Your task to perform on an android device: delete location history Image 0: 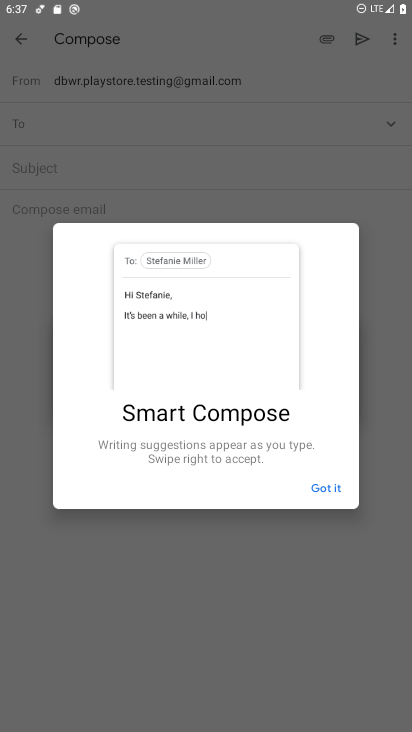
Step 0: press home button
Your task to perform on an android device: delete location history Image 1: 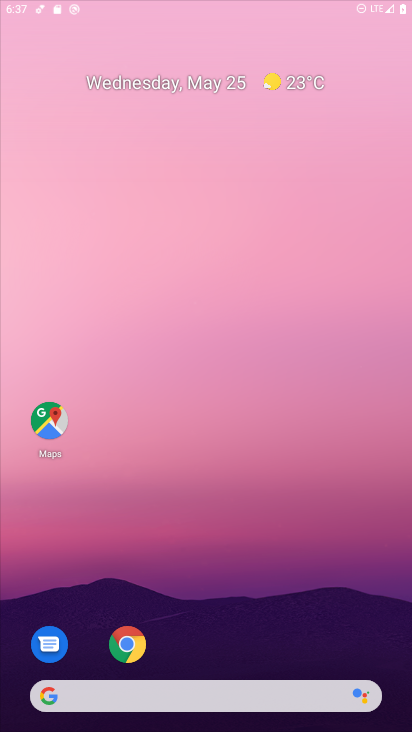
Step 1: drag from (351, 653) to (268, 78)
Your task to perform on an android device: delete location history Image 2: 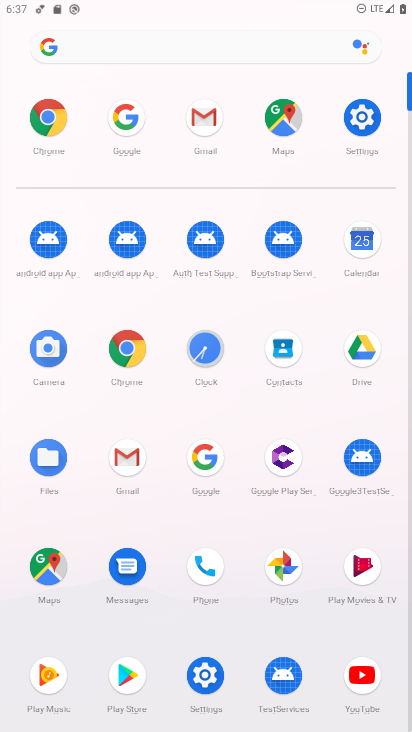
Step 2: click (371, 136)
Your task to perform on an android device: delete location history Image 3: 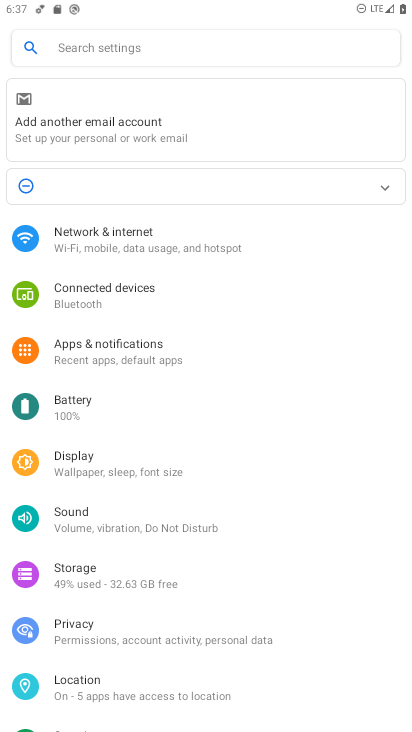
Step 3: click (76, 685)
Your task to perform on an android device: delete location history Image 4: 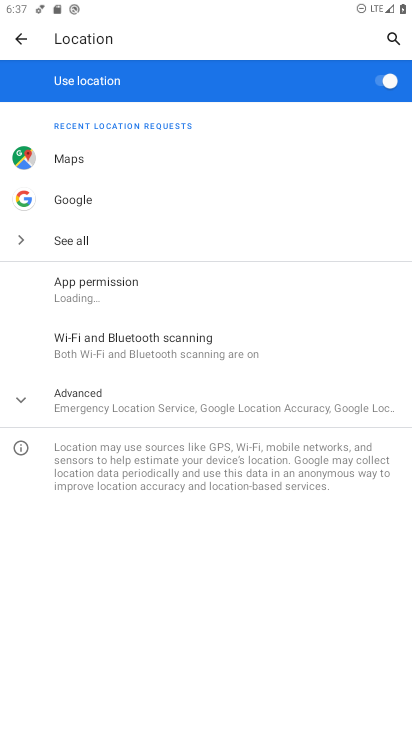
Step 4: click (145, 407)
Your task to perform on an android device: delete location history Image 5: 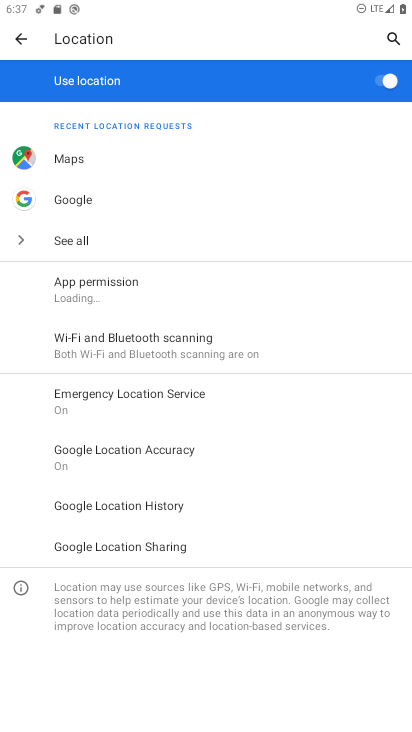
Step 5: click (158, 501)
Your task to perform on an android device: delete location history Image 6: 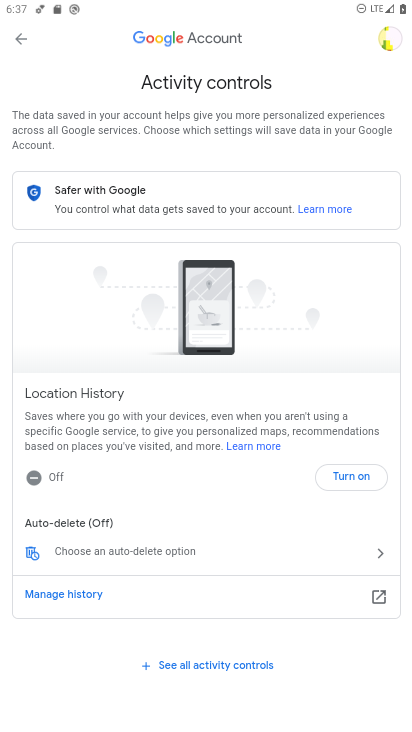
Step 6: drag from (374, 649) to (290, 171)
Your task to perform on an android device: delete location history Image 7: 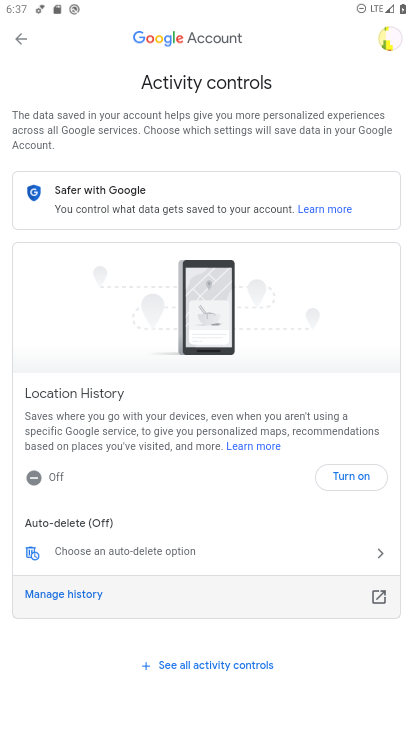
Step 7: click (150, 556)
Your task to perform on an android device: delete location history Image 8: 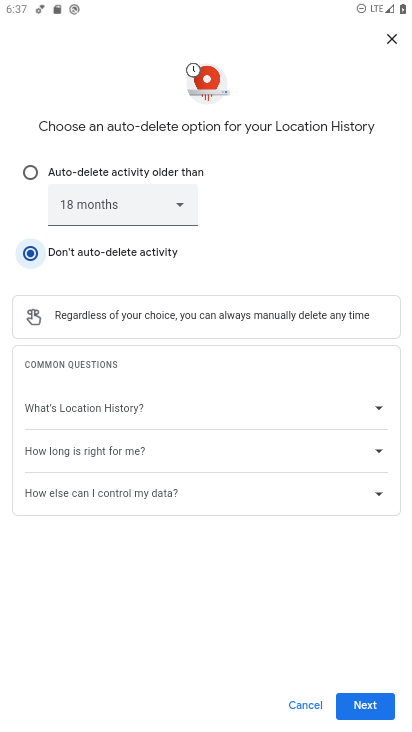
Step 8: click (364, 694)
Your task to perform on an android device: delete location history Image 9: 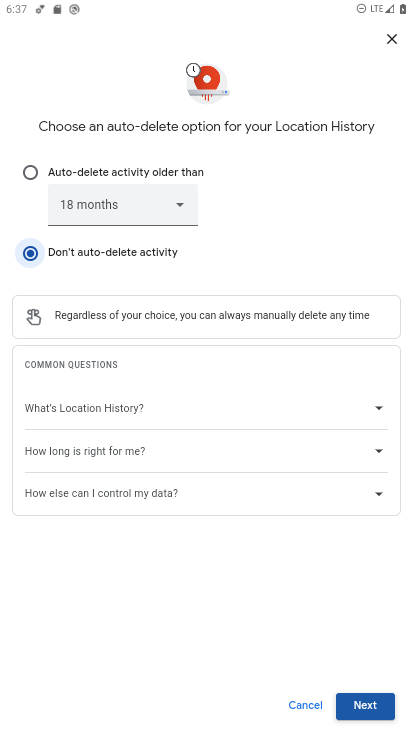
Step 9: click (368, 703)
Your task to perform on an android device: delete location history Image 10: 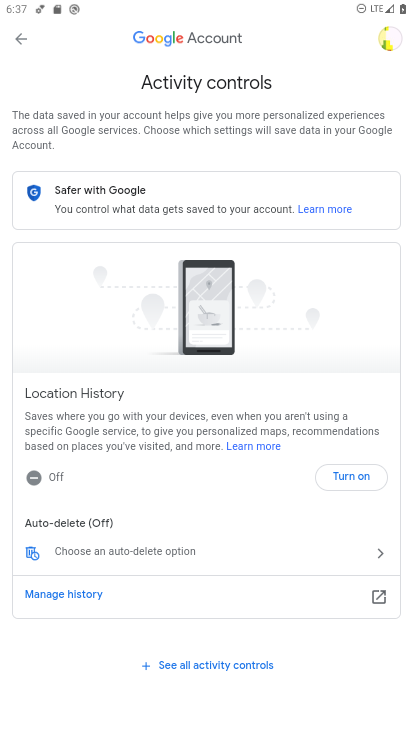
Step 10: task complete